Your task to perform on an android device: change the upload size in google photos Image 0: 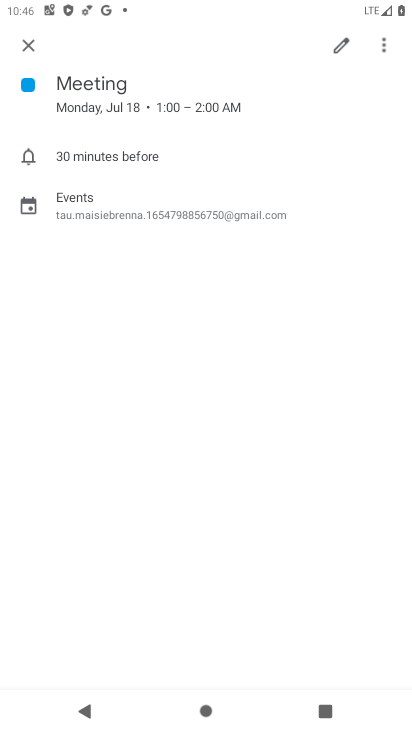
Step 0: press home button
Your task to perform on an android device: change the upload size in google photos Image 1: 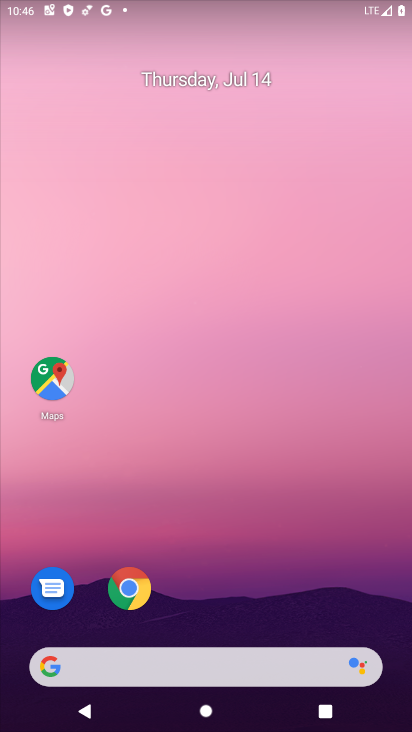
Step 1: drag from (164, 668) to (266, 22)
Your task to perform on an android device: change the upload size in google photos Image 2: 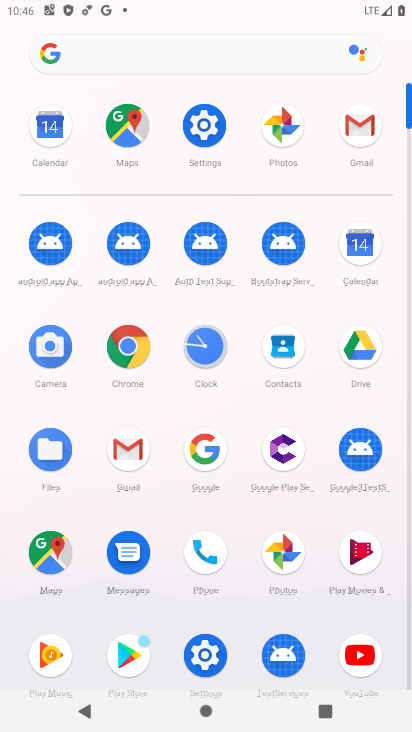
Step 2: click (284, 556)
Your task to perform on an android device: change the upload size in google photos Image 3: 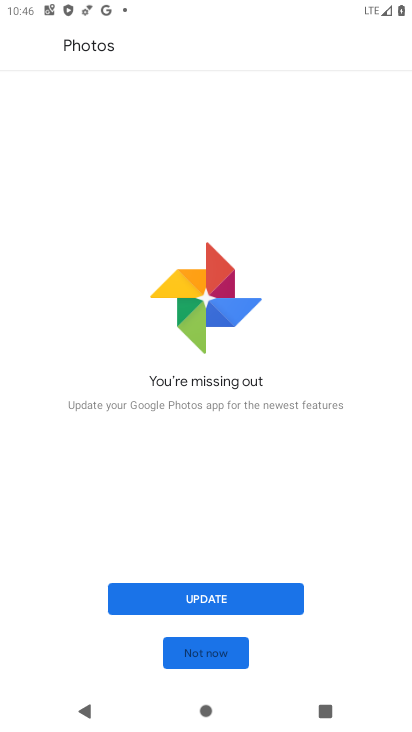
Step 3: click (224, 663)
Your task to perform on an android device: change the upload size in google photos Image 4: 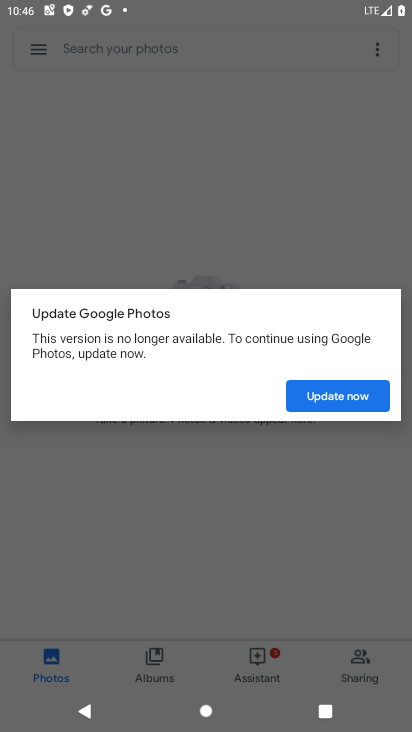
Step 4: click (365, 388)
Your task to perform on an android device: change the upload size in google photos Image 5: 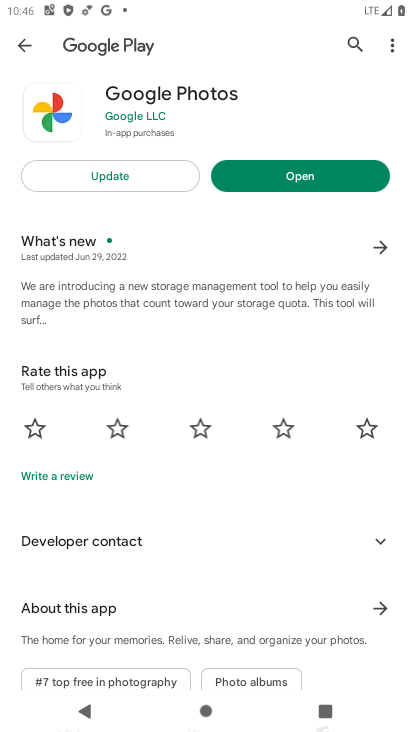
Step 5: click (316, 180)
Your task to perform on an android device: change the upload size in google photos Image 6: 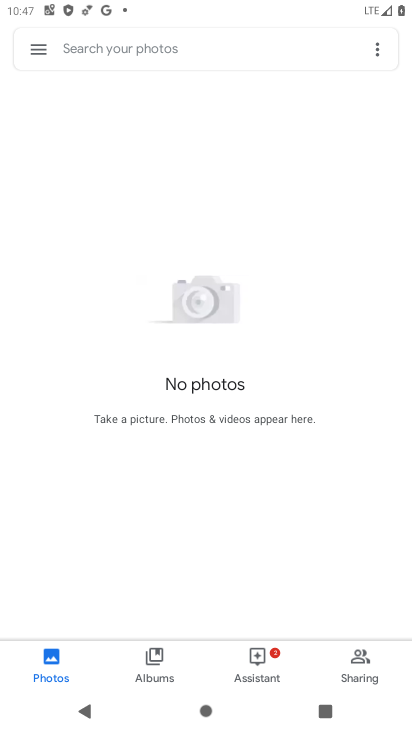
Step 6: click (38, 47)
Your task to perform on an android device: change the upload size in google photos Image 7: 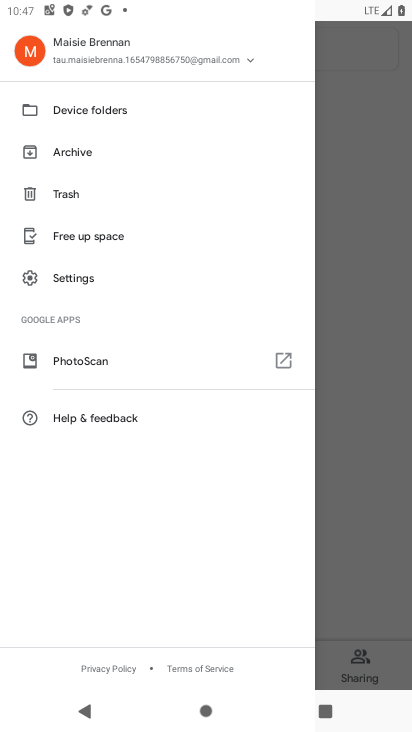
Step 7: click (95, 283)
Your task to perform on an android device: change the upload size in google photos Image 8: 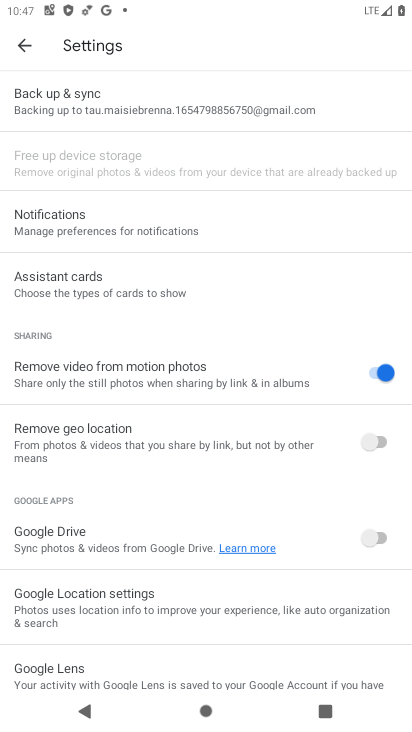
Step 8: click (184, 115)
Your task to perform on an android device: change the upload size in google photos Image 9: 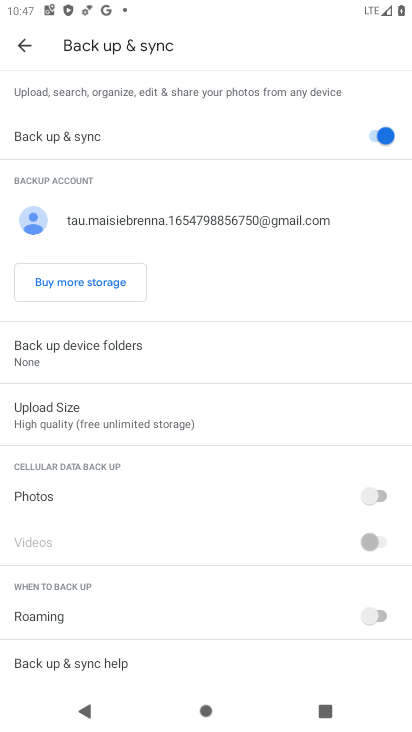
Step 9: click (114, 419)
Your task to perform on an android device: change the upload size in google photos Image 10: 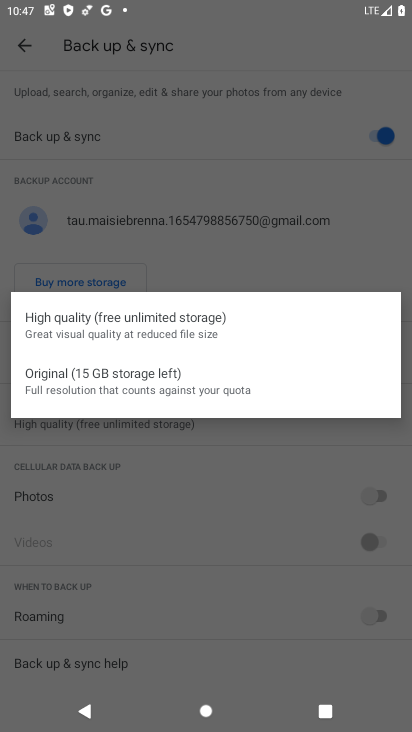
Step 10: click (67, 379)
Your task to perform on an android device: change the upload size in google photos Image 11: 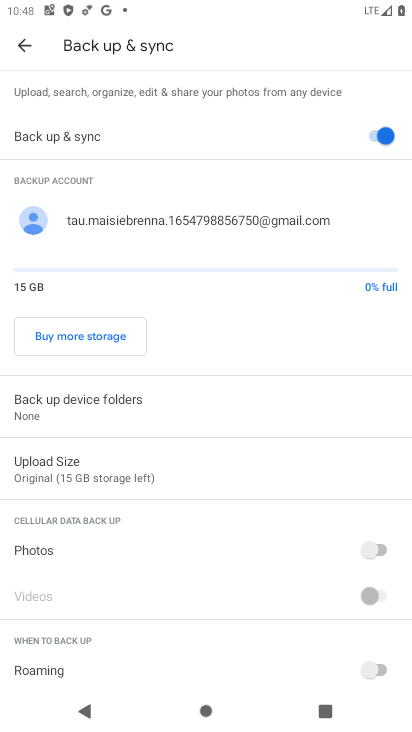
Step 11: task complete